Your task to perform on an android device: Go to CNN.com Image 0: 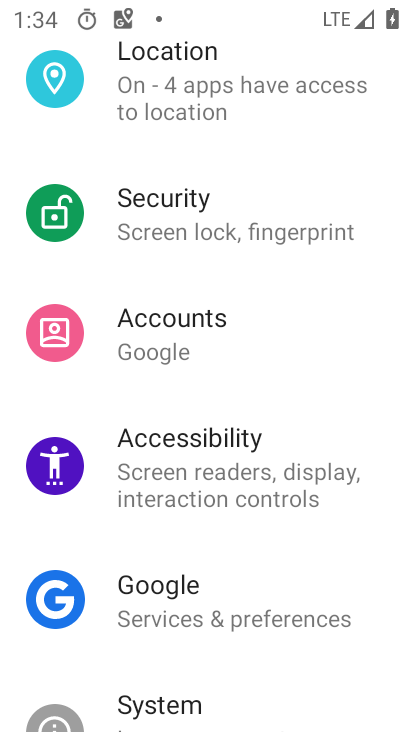
Step 0: press home button
Your task to perform on an android device: Go to CNN.com Image 1: 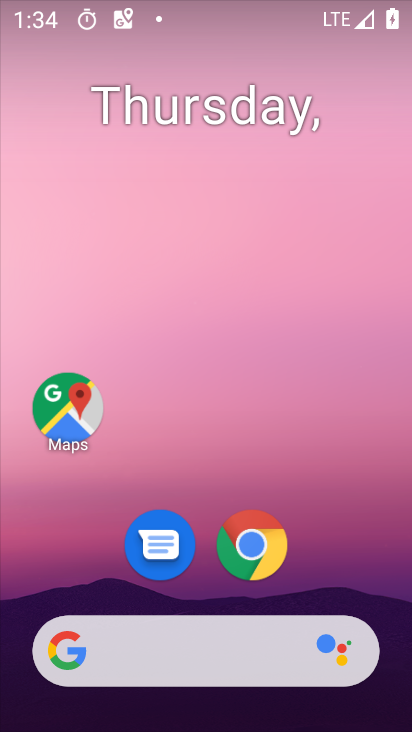
Step 1: drag from (169, 676) to (184, 117)
Your task to perform on an android device: Go to CNN.com Image 2: 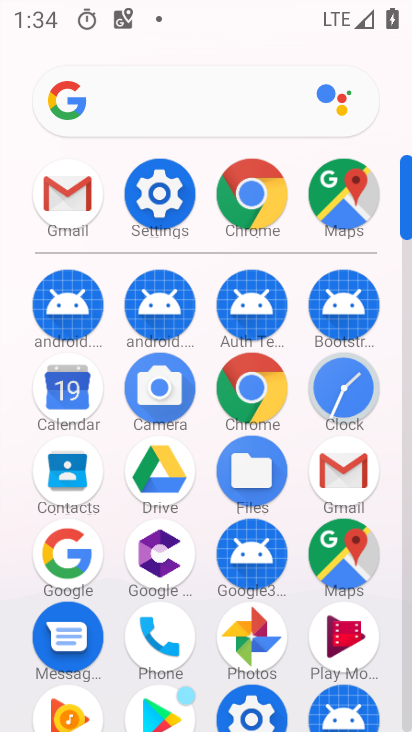
Step 2: click (267, 379)
Your task to perform on an android device: Go to CNN.com Image 3: 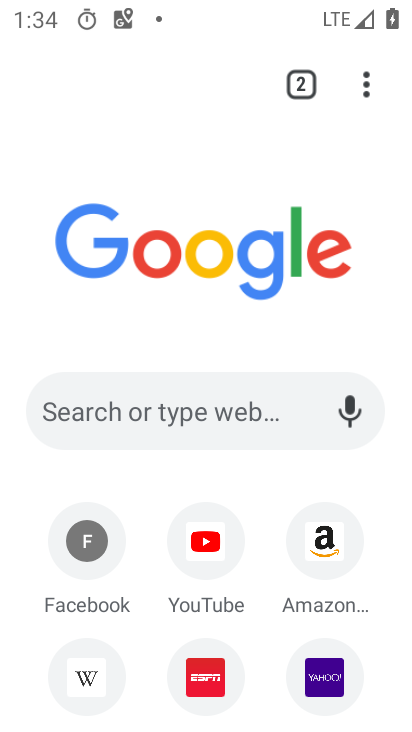
Step 3: click (214, 394)
Your task to perform on an android device: Go to CNN.com Image 4: 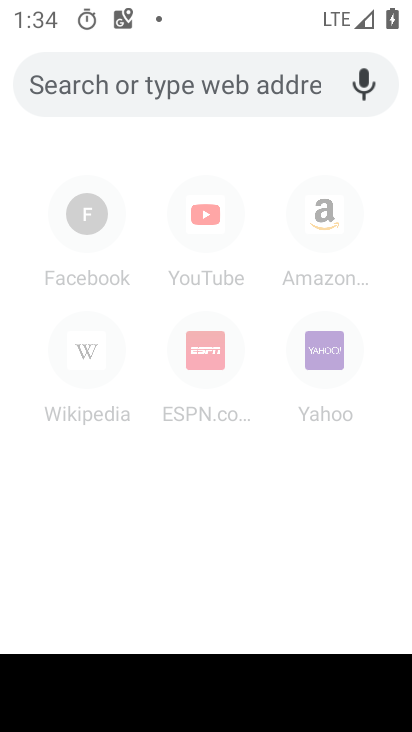
Step 4: type "cnn.com"
Your task to perform on an android device: Go to CNN.com Image 5: 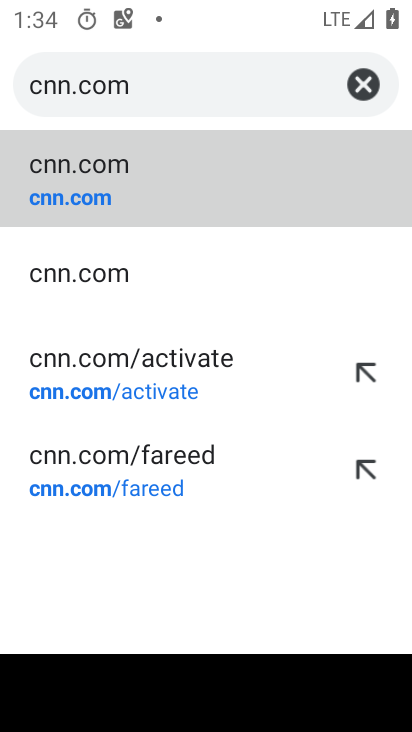
Step 5: click (147, 192)
Your task to perform on an android device: Go to CNN.com Image 6: 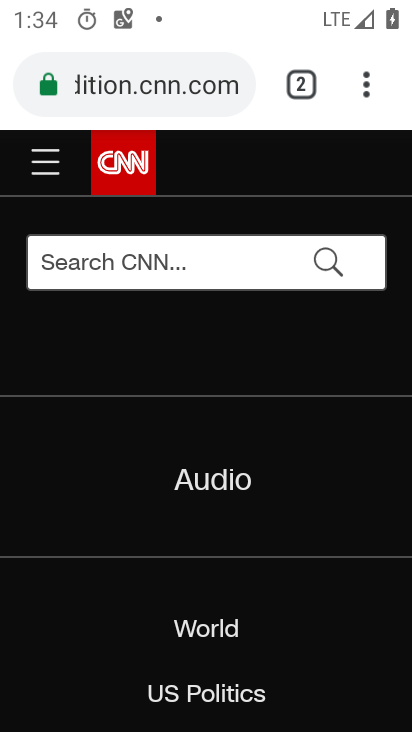
Step 6: task complete